Your task to perform on an android device: toggle airplane mode Image 0: 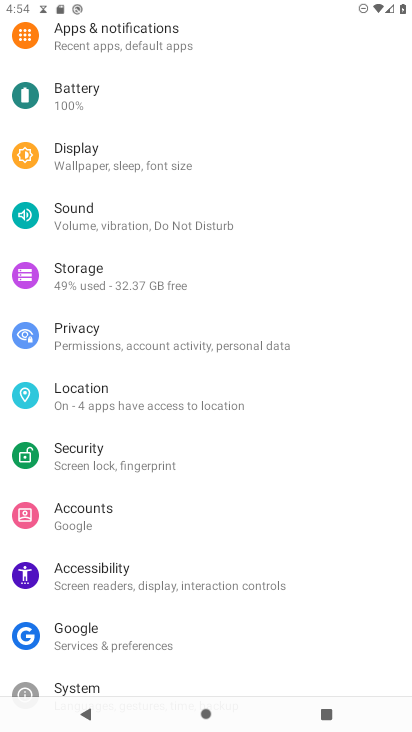
Step 0: press home button
Your task to perform on an android device: toggle airplane mode Image 1: 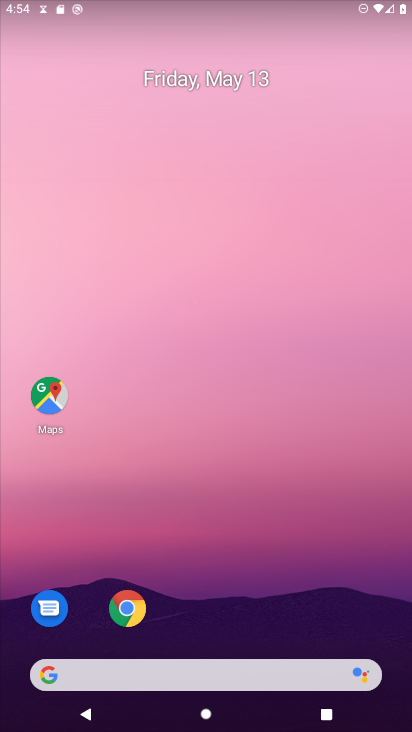
Step 1: drag from (332, 656) to (345, 4)
Your task to perform on an android device: toggle airplane mode Image 2: 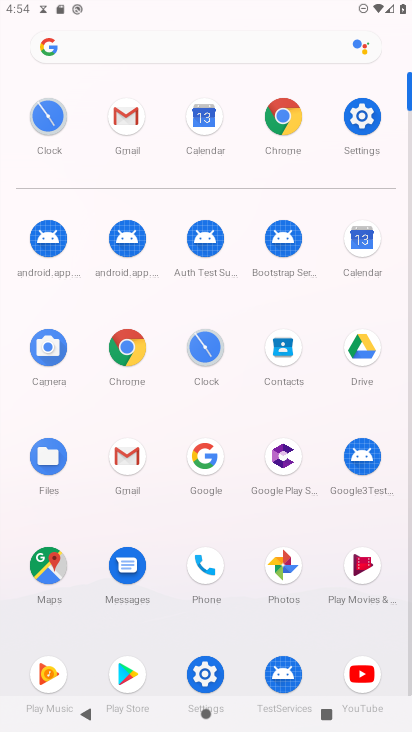
Step 2: click (355, 116)
Your task to perform on an android device: toggle airplane mode Image 3: 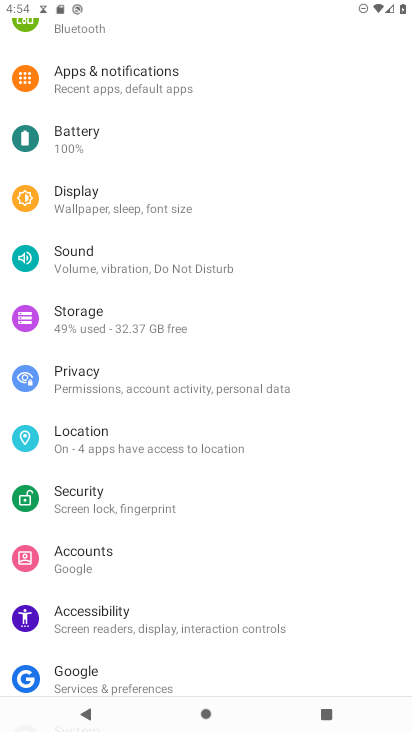
Step 3: drag from (214, 144) to (229, 712)
Your task to perform on an android device: toggle airplane mode Image 4: 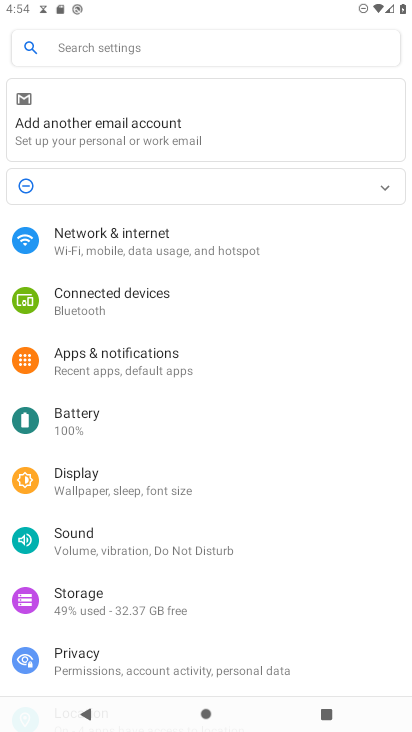
Step 4: click (176, 226)
Your task to perform on an android device: toggle airplane mode Image 5: 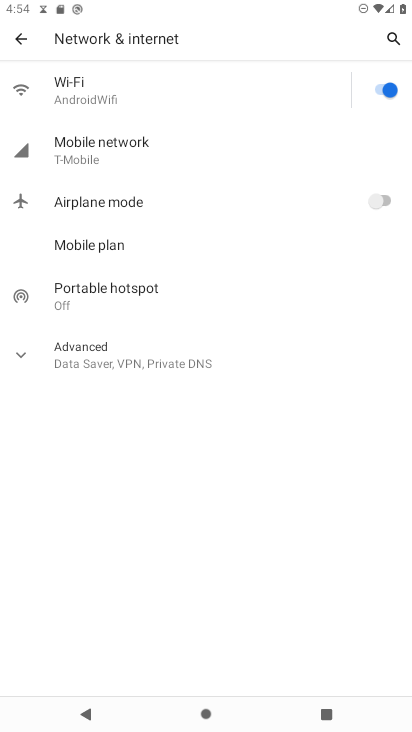
Step 5: click (387, 196)
Your task to perform on an android device: toggle airplane mode Image 6: 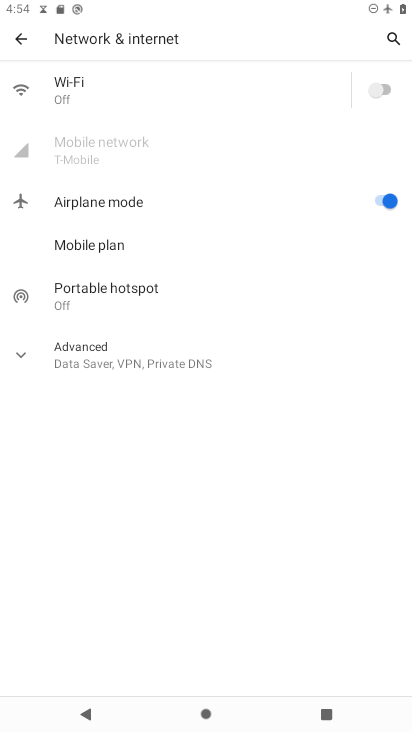
Step 6: task complete